Your task to perform on an android device: What's on my calendar tomorrow? Image 0: 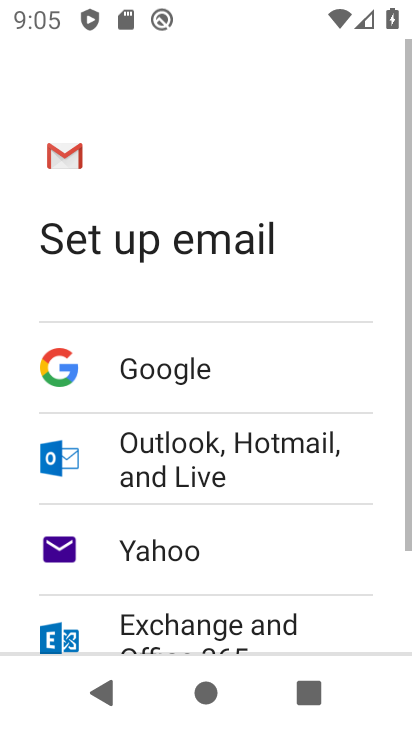
Step 0: drag from (206, 618) to (323, 188)
Your task to perform on an android device: What's on my calendar tomorrow? Image 1: 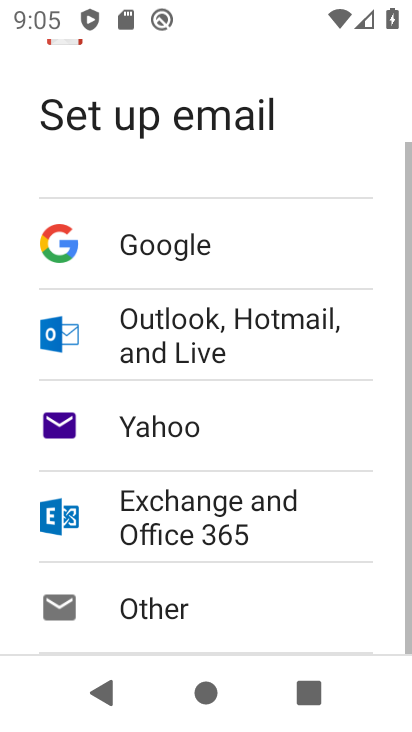
Step 1: drag from (244, 540) to (331, 226)
Your task to perform on an android device: What's on my calendar tomorrow? Image 2: 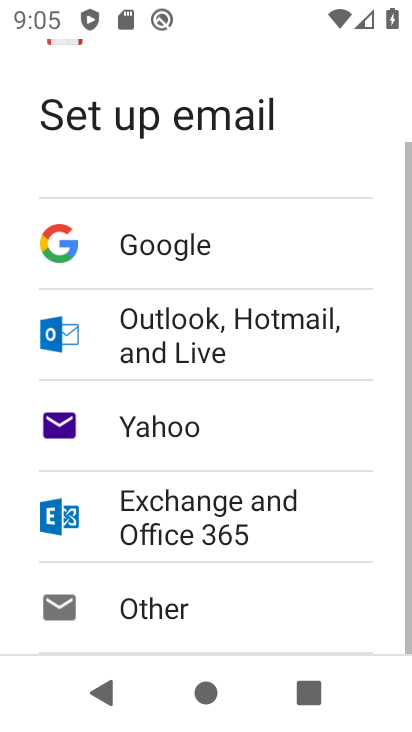
Step 2: press back button
Your task to perform on an android device: What's on my calendar tomorrow? Image 3: 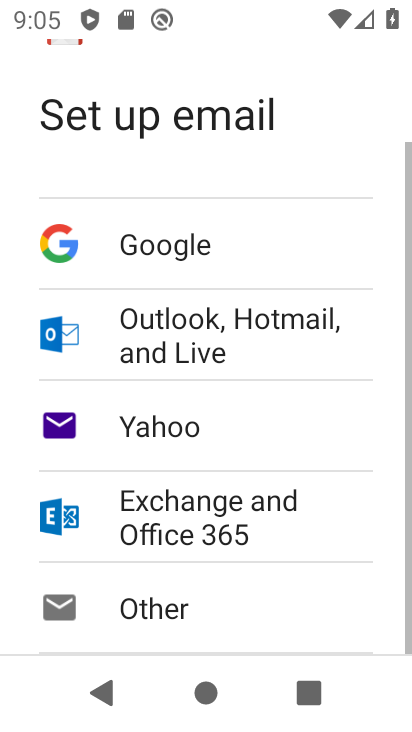
Step 3: press back button
Your task to perform on an android device: What's on my calendar tomorrow? Image 4: 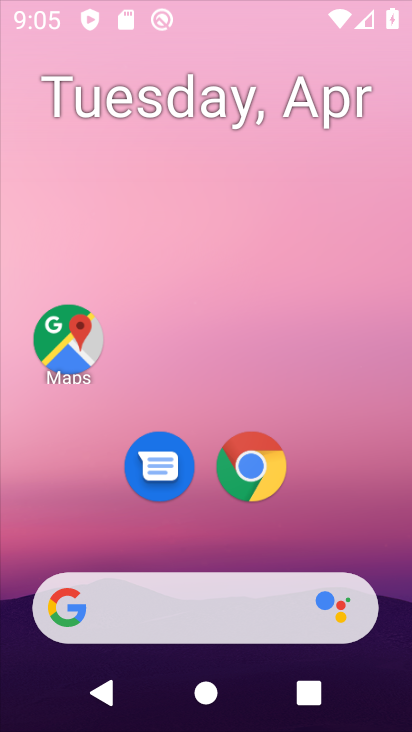
Step 4: press back button
Your task to perform on an android device: What's on my calendar tomorrow? Image 5: 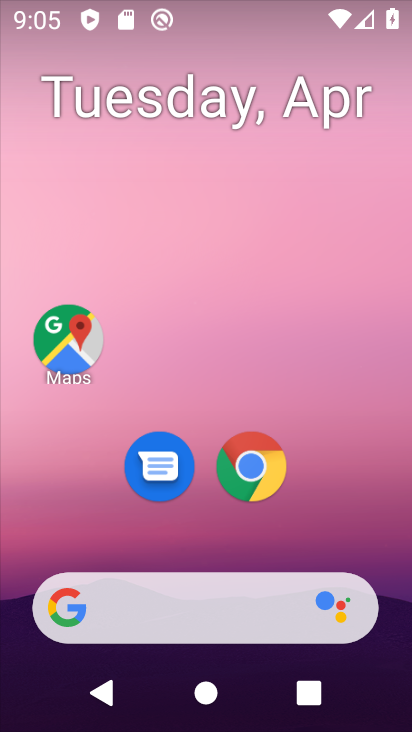
Step 5: press back button
Your task to perform on an android device: What's on my calendar tomorrow? Image 6: 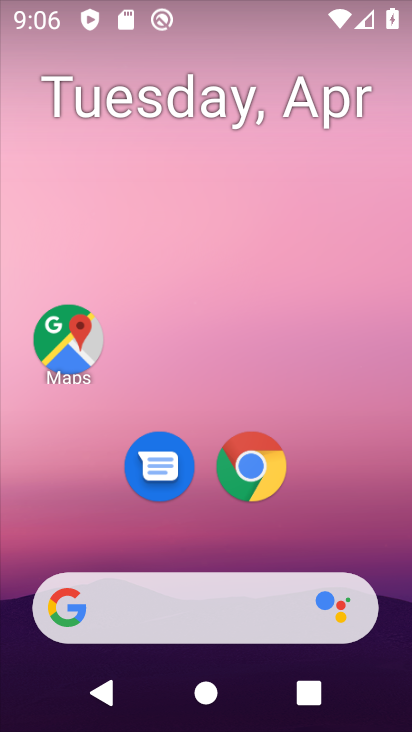
Step 6: drag from (338, 517) to (354, 280)
Your task to perform on an android device: What's on my calendar tomorrow? Image 7: 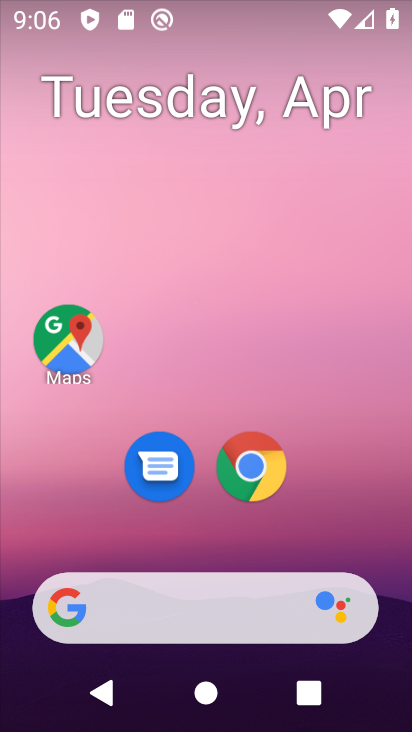
Step 7: drag from (328, 500) to (289, 3)
Your task to perform on an android device: What's on my calendar tomorrow? Image 8: 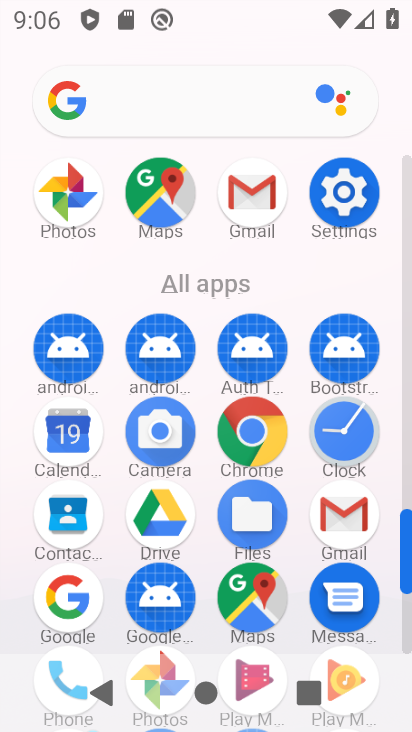
Step 8: click (61, 436)
Your task to perform on an android device: What's on my calendar tomorrow? Image 9: 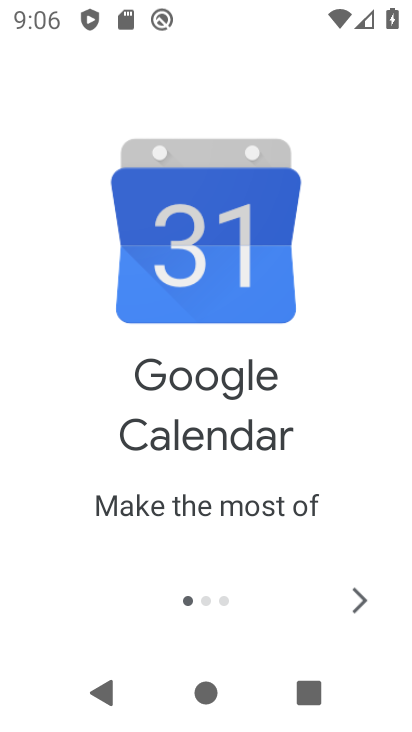
Step 9: click (361, 610)
Your task to perform on an android device: What's on my calendar tomorrow? Image 10: 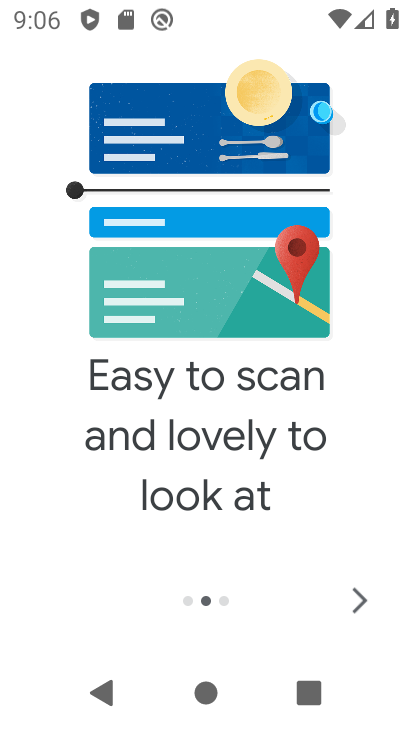
Step 10: click (361, 610)
Your task to perform on an android device: What's on my calendar tomorrow? Image 11: 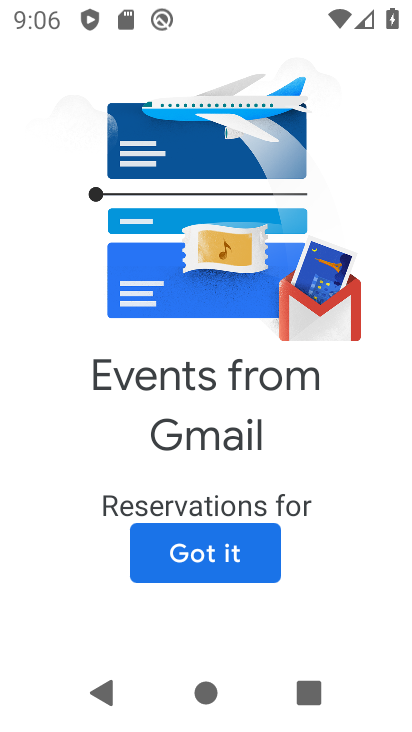
Step 11: click (223, 563)
Your task to perform on an android device: What's on my calendar tomorrow? Image 12: 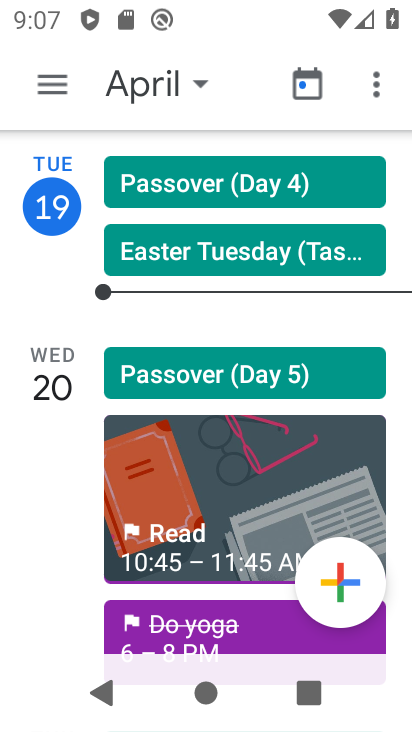
Step 12: click (170, 93)
Your task to perform on an android device: What's on my calendar tomorrow? Image 13: 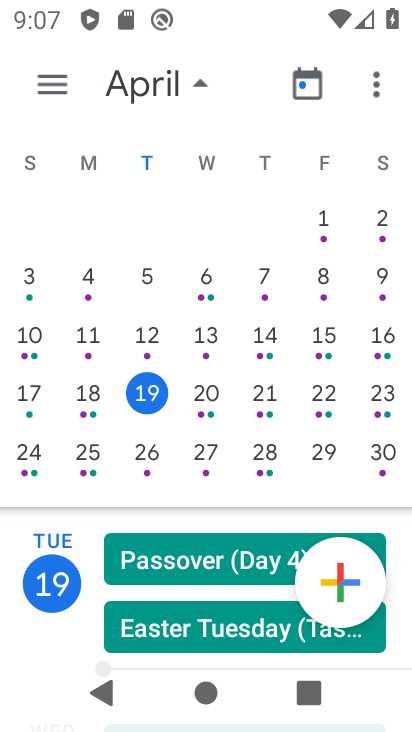
Step 13: click (52, 568)
Your task to perform on an android device: What's on my calendar tomorrow? Image 14: 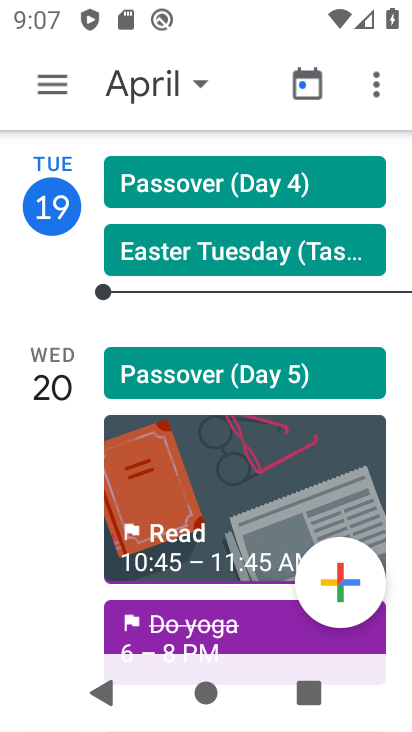
Step 14: click (48, 405)
Your task to perform on an android device: What's on my calendar tomorrow? Image 15: 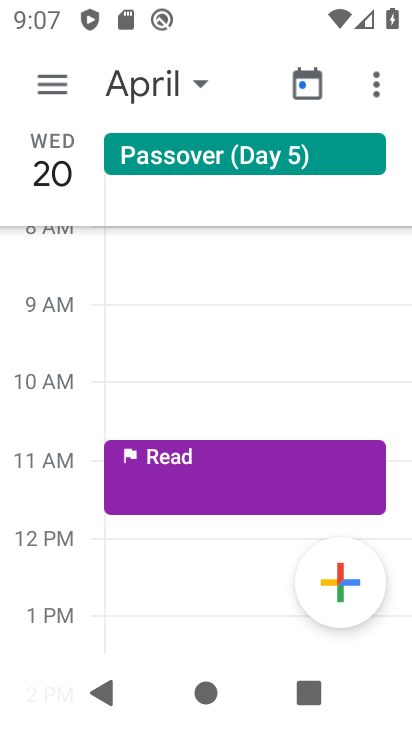
Step 15: task complete